Your task to perform on an android device: change your default location settings in chrome Image 0: 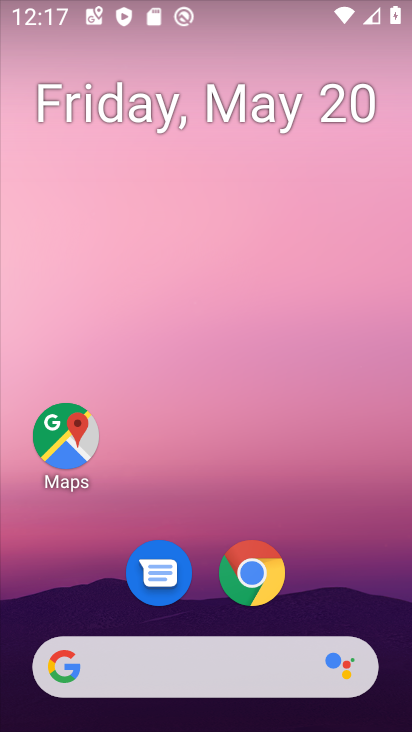
Step 0: click (250, 578)
Your task to perform on an android device: change your default location settings in chrome Image 1: 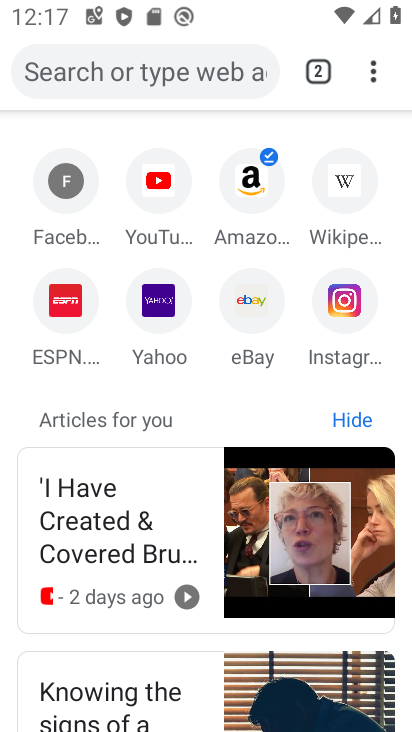
Step 1: click (367, 76)
Your task to perform on an android device: change your default location settings in chrome Image 2: 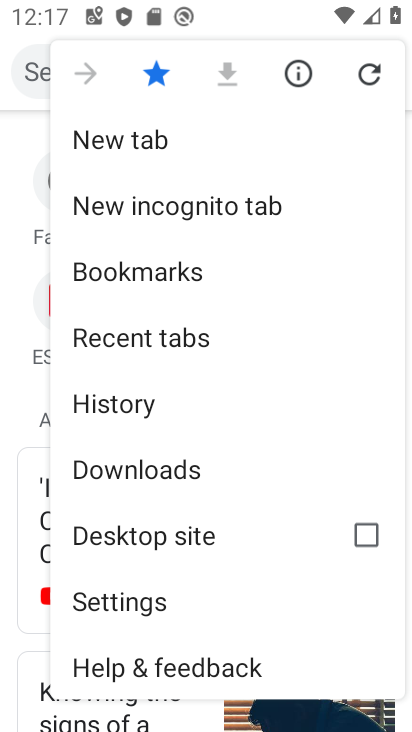
Step 2: click (172, 619)
Your task to perform on an android device: change your default location settings in chrome Image 3: 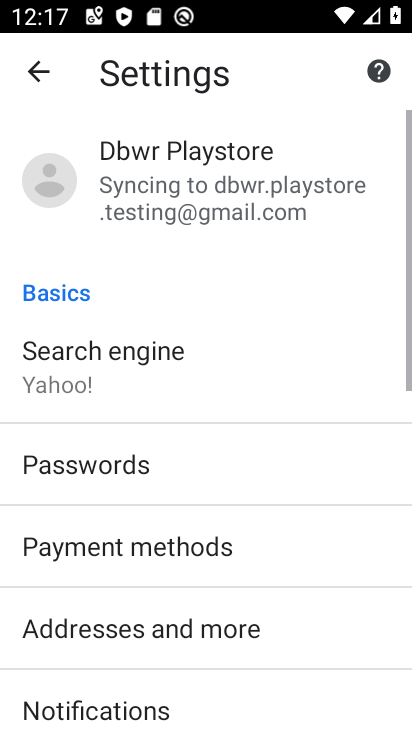
Step 3: drag from (229, 571) to (210, 183)
Your task to perform on an android device: change your default location settings in chrome Image 4: 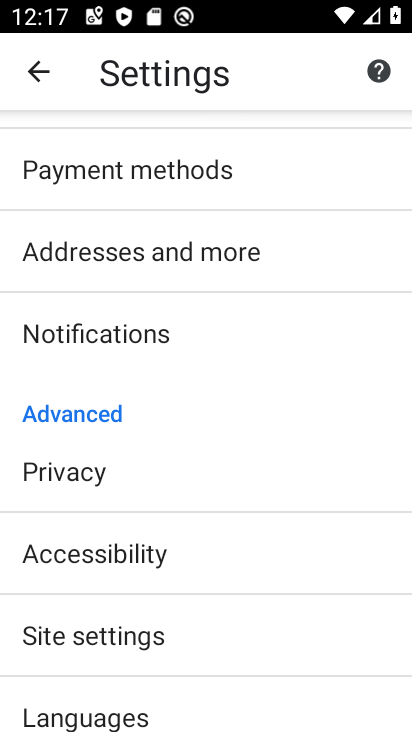
Step 4: click (133, 638)
Your task to perform on an android device: change your default location settings in chrome Image 5: 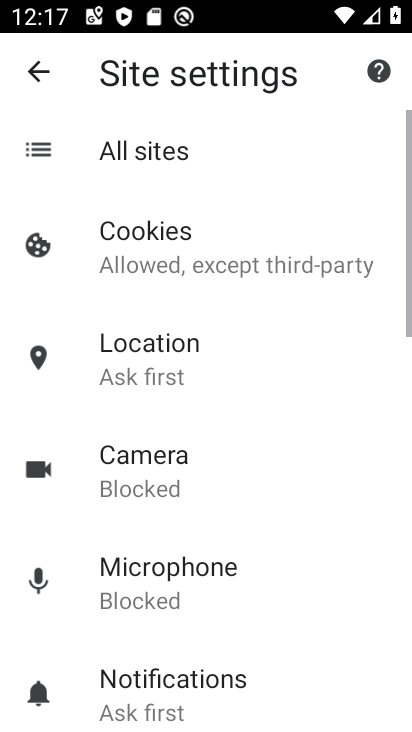
Step 5: click (175, 358)
Your task to perform on an android device: change your default location settings in chrome Image 6: 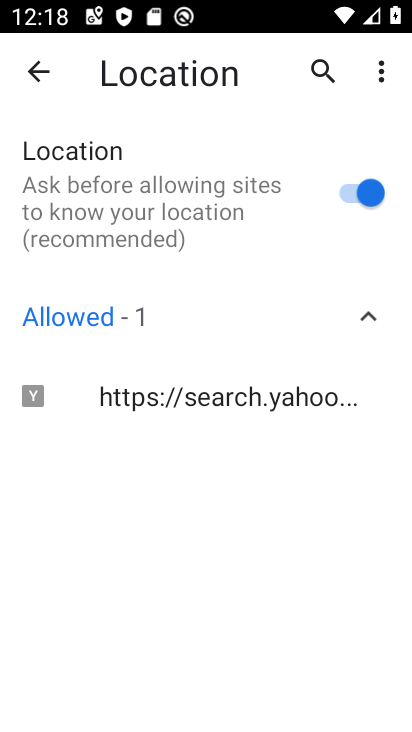
Step 6: task complete